Your task to perform on an android device: Go to Google Image 0: 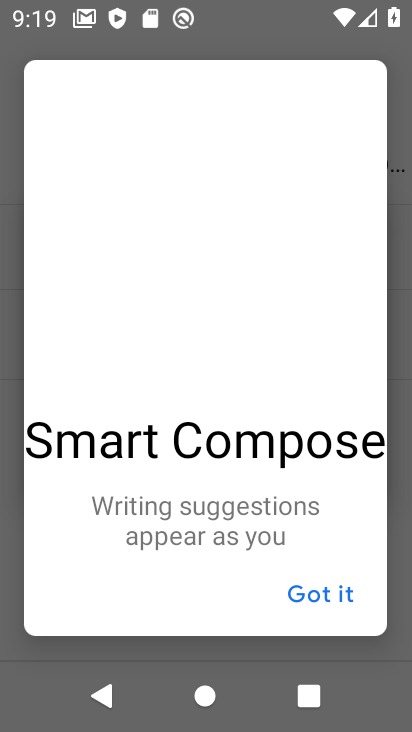
Step 0: press home button
Your task to perform on an android device: Go to Google Image 1: 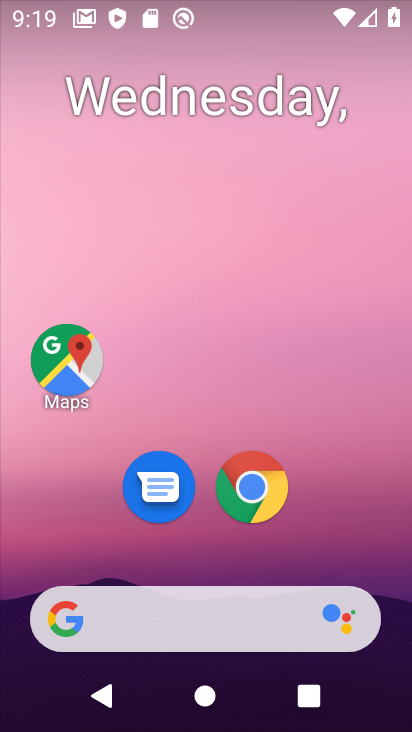
Step 1: drag from (137, 614) to (276, 61)
Your task to perform on an android device: Go to Google Image 2: 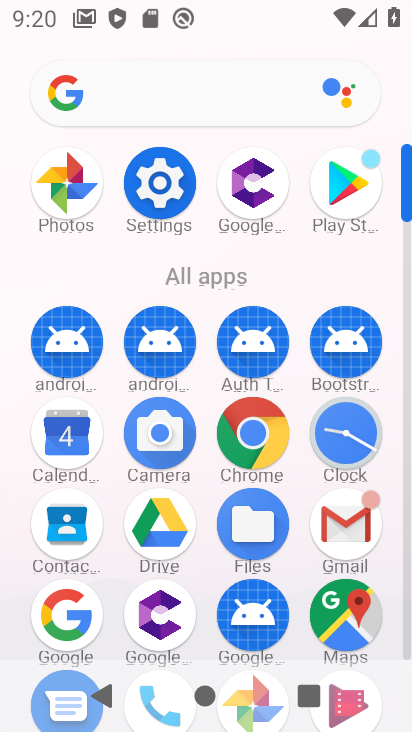
Step 2: click (72, 622)
Your task to perform on an android device: Go to Google Image 3: 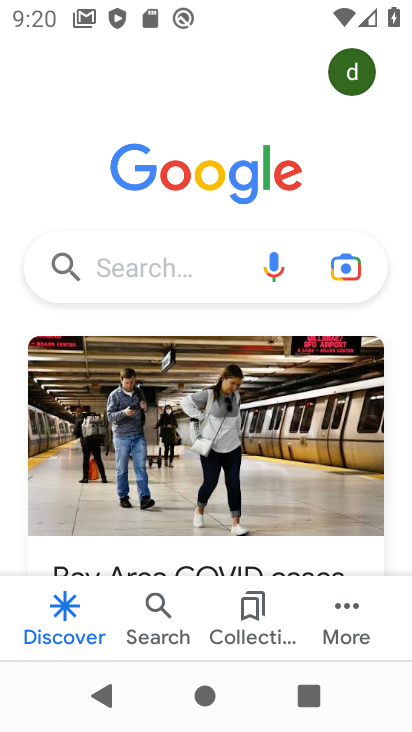
Step 3: task complete